Your task to perform on an android device: Search for "dell alienware" on bestbuy, select the first entry, add it to the cart, then select checkout. Image 0: 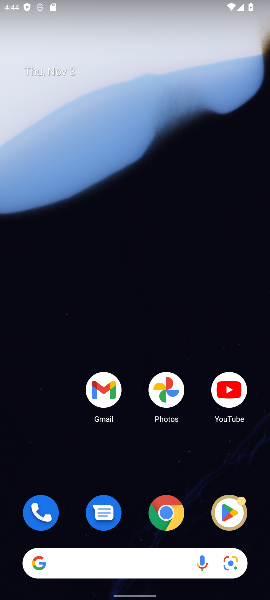
Step 0: click (168, 515)
Your task to perform on an android device: Search for "dell alienware" on bestbuy, select the first entry, add it to the cart, then select checkout. Image 1: 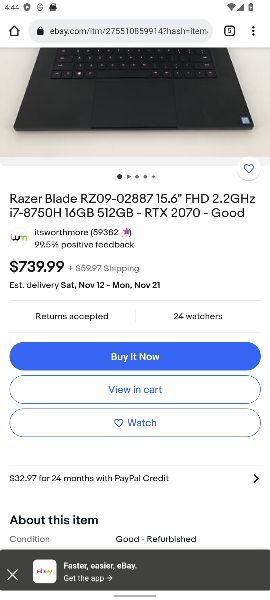
Step 1: click (224, 35)
Your task to perform on an android device: Search for "dell alienware" on bestbuy, select the first entry, add it to the cart, then select checkout. Image 2: 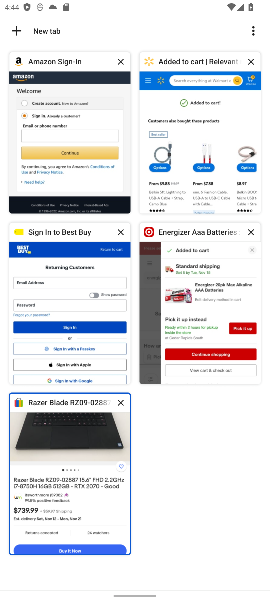
Step 2: click (57, 252)
Your task to perform on an android device: Search for "dell alienware" on bestbuy, select the first entry, add it to the cart, then select checkout. Image 3: 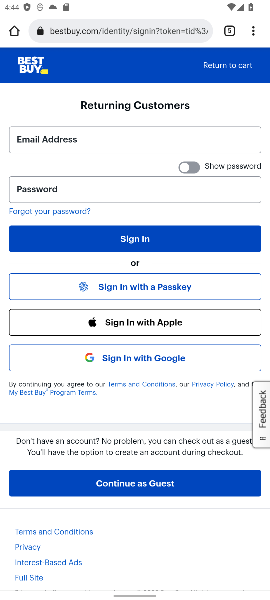
Step 3: click (223, 68)
Your task to perform on an android device: Search for "dell alienware" on bestbuy, select the first entry, add it to the cart, then select checkout. Image 4: 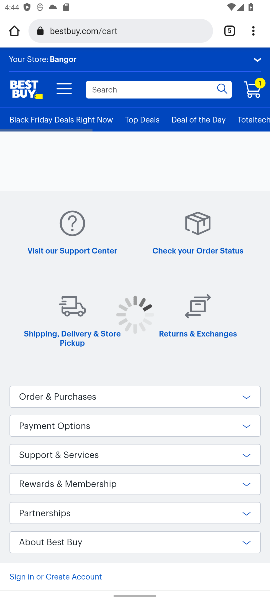
Step 4: click (151, 89)
Your task to perform on an android device: Search for "dell alienware" on bestbuy, select the first entry, add it to the cart, then select checkout. Image 5: 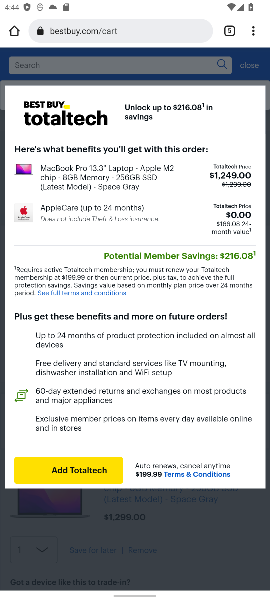
Step 5: type "dell alienware"
Your task to perform on an android device: Search for "dell alienware" on bestbuy, select the first entry, add it to the cart, then select checkout. Image 6: 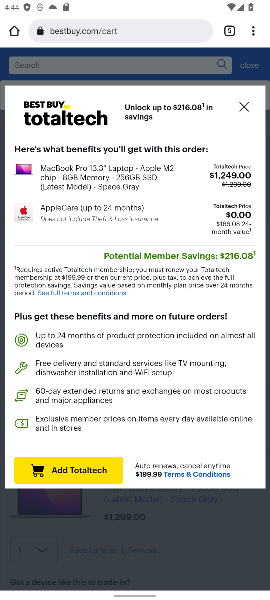
Step 6: click (247, 105)
Your task to perform on an android device: Search for "dell alienware" on bestbuy, select the first entry, add it to the cart, then select checkout. Image 7: 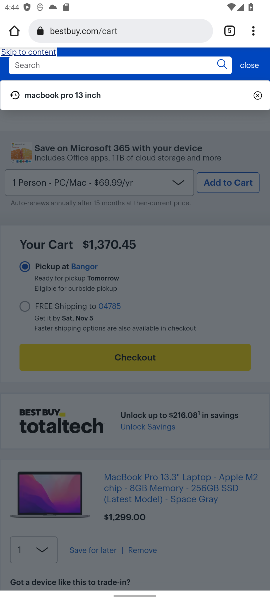
Step 7: click (99, 62)
Your task to perform on an android device: Search for "dell alienware" on bestbuy, select the first entry, add it to the cart, then select checkout. Image 8: 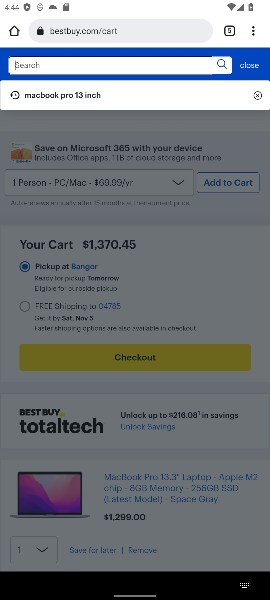
Step 8: type "dell alienware"
Your task to perform on an android device: Search for "dell alienware" on bestbuy, select the first entry, add it to the cart, then select checkout. Image 9: 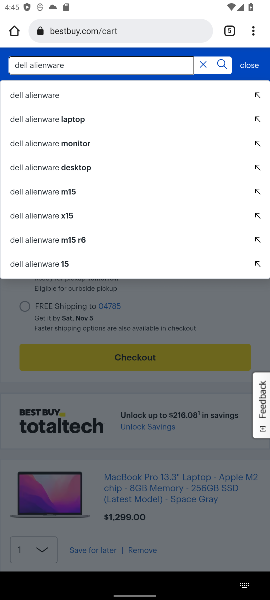
Step 9: click (36, 91)
Your task to perform on an android device: Search for "dell alienware" on bestbuy, select the first entry, add it to the cart, then select checkout. Image 10: 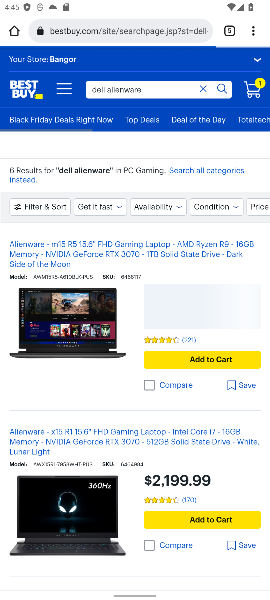
Step 10: click (198, 360)
Your task to perform on an android device: Search for "dell alienware" on bestbuy, select the first entry, add it to the cart, then select checkout. Image 11: 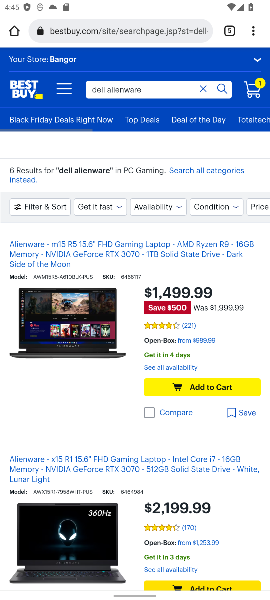
Step 11: click (253, 93)
Your task to perform on an android device: Search for "dell alienware" on bestbuy, select the first entry, add it to the cart, then select checkout. Image 12: 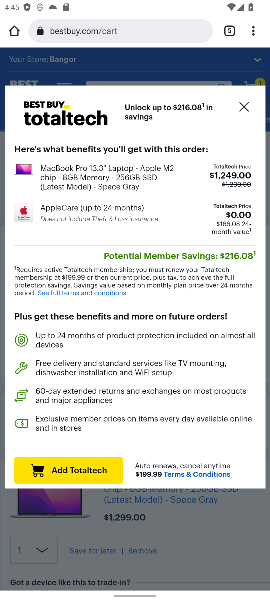
Step 12: click (246, 104)
Your task to perform on an android device: Search for "dell alienware" on bestbuy, select the first entry, add it to the cart, then select checkout. Image 13: 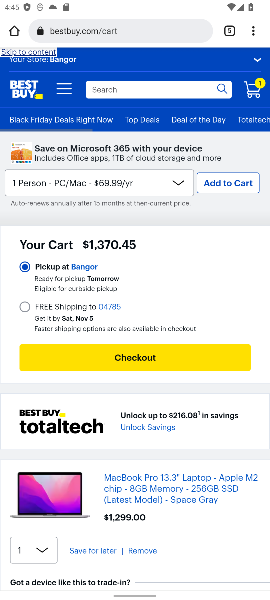
Step 13: click (110, 359)
Your task to perform on an android device: Search for "dell alienware" on bestbuy, select the first entry, add it to the cart, then select checkout. Image 14: 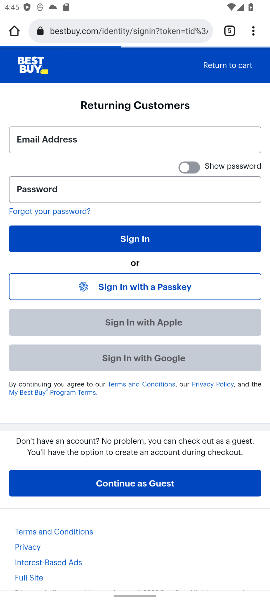
Step 14: task complete